Your task to perform on an android device: open wifi settings Image 0: 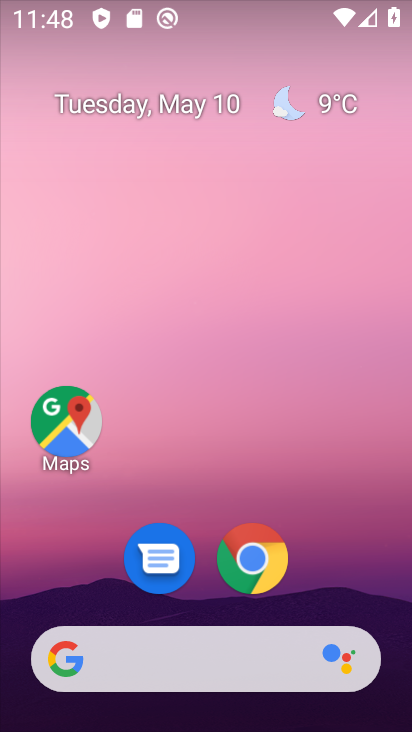
Step 0: drag from (337, 570) to (344, 129)
Your task to perform on an android device: open wifi settings Image 1: 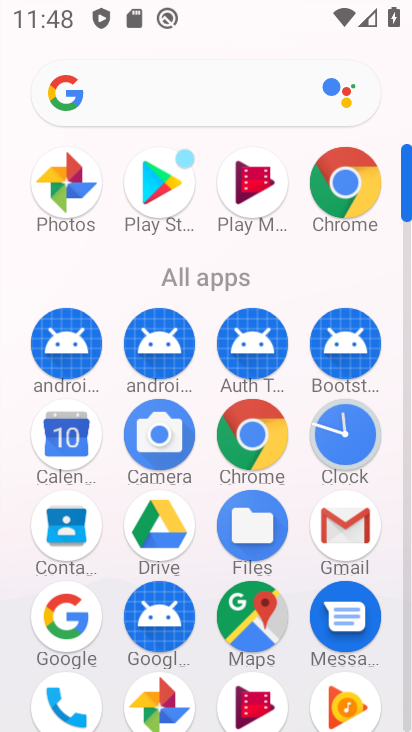
Step 1: drag from (221, 603) to (244, 310)
Your task to perform on an android device: open wifi settings Image 2: 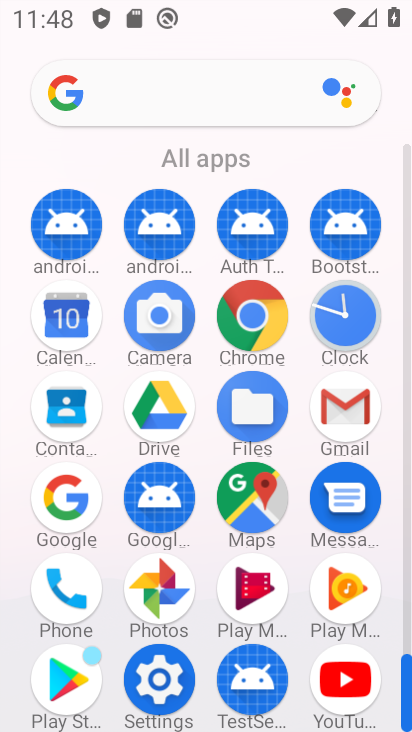
Step 2: click (141, 697)
Your task to perform on an android device: open wifi settings Image 3: 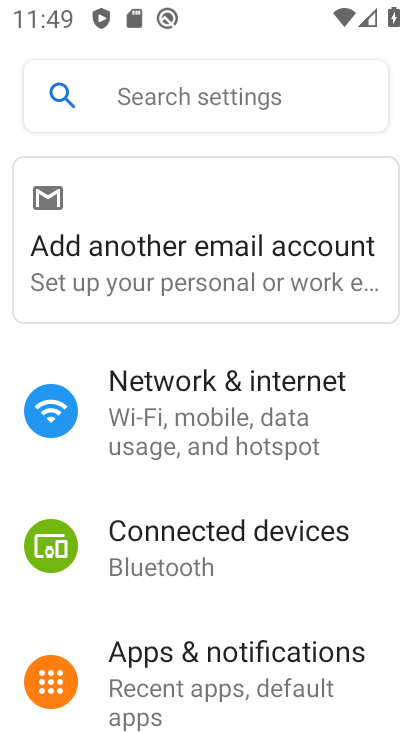
Step 3: click (301, 409)
Your task to perform on an android device: open wifi settings Image 4: 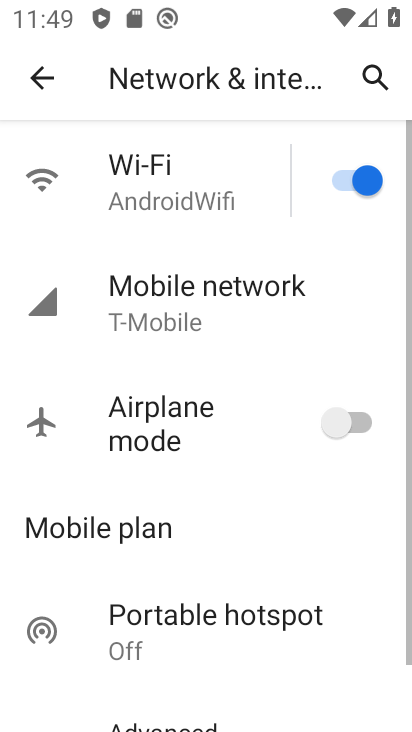
Step 4: click (183, 219)
Your task to perform on an android device: open wifi settings Image 5: 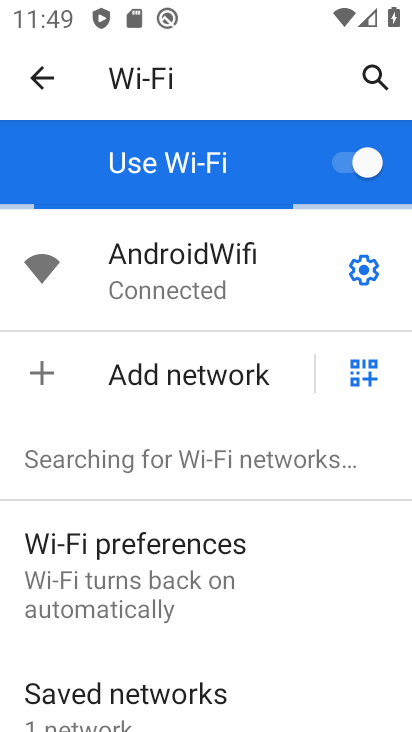
Step 5: click (360, 275)
Your task to perform on an android device: open wifi settings Image 6: 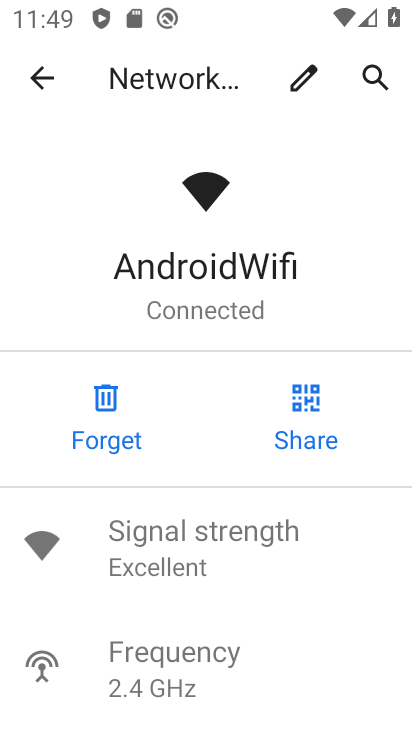
Step 6: task complete